Your task to perform on an android device: Open Google Chrome and open the bookmarks view Image 0: 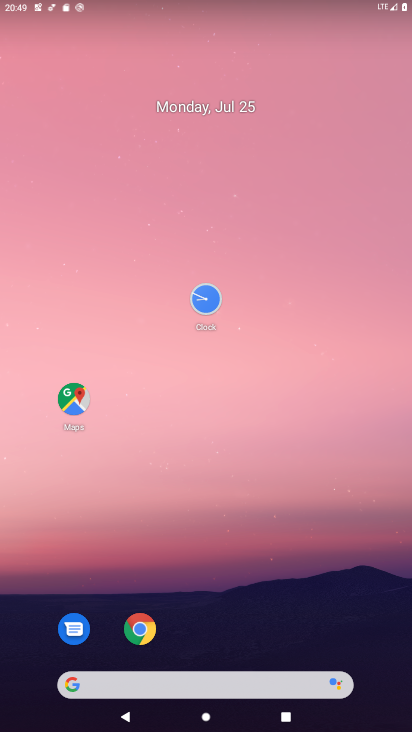
Step 0: click (145, 641)
Your task to perform on an android device: Open Google Chrome and open the bookmarks view Image 1: 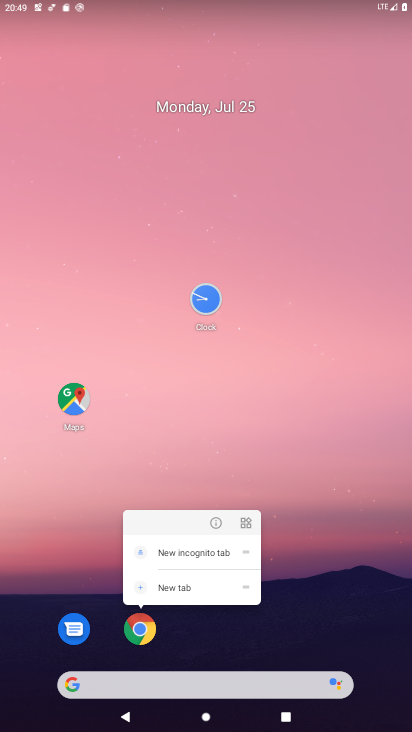
Step 1: click (146, 628)
Your task to perform on an android device: Open Google Chrome and open the bookmarks view Image 2: 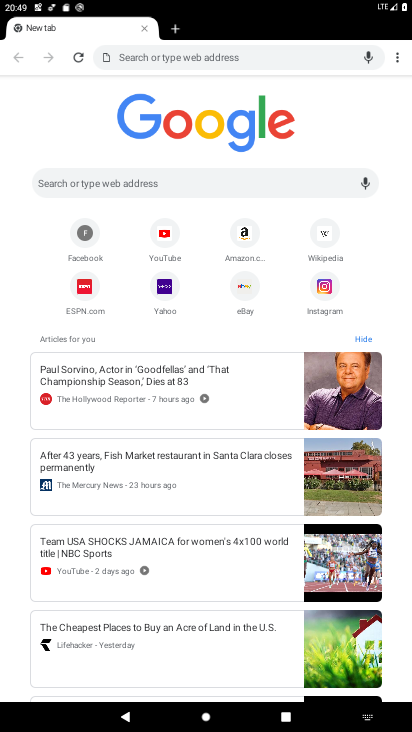
Step 2: click (398, 54)
Your task to perform on an android device: Open Google Chrome and open the bookmarks view Image 3: 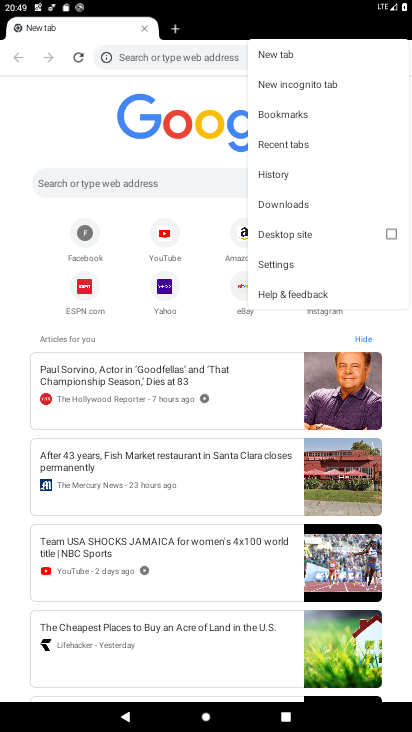
Step 3: click (301, 120)
Your task to perform on an android device: Open Google Chrome and open the bookmarks view Image 4: 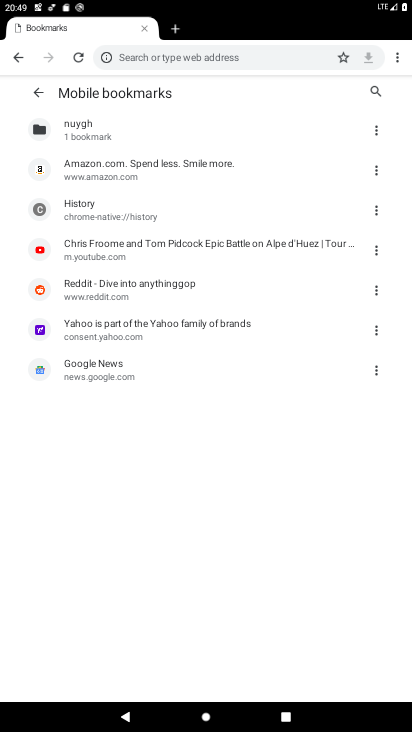
Step 4: click (114, 175)
Your task to perform on an android device: Open Google Chrome and open the bookmarks view Image 5: 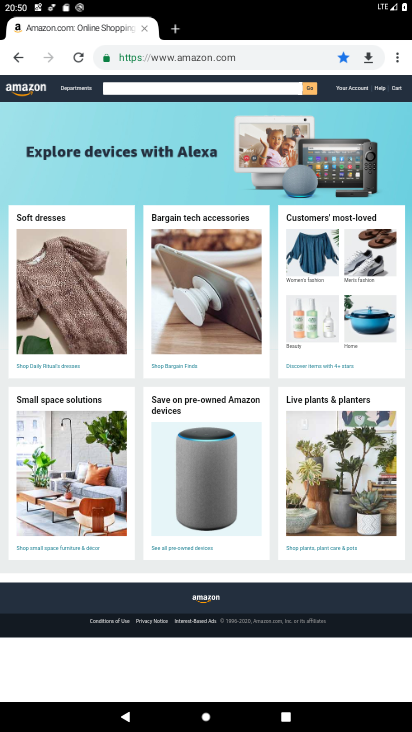
Step 5: task complete